Your task to perform on an android device: Show me popular videos on Youtube Image 0: 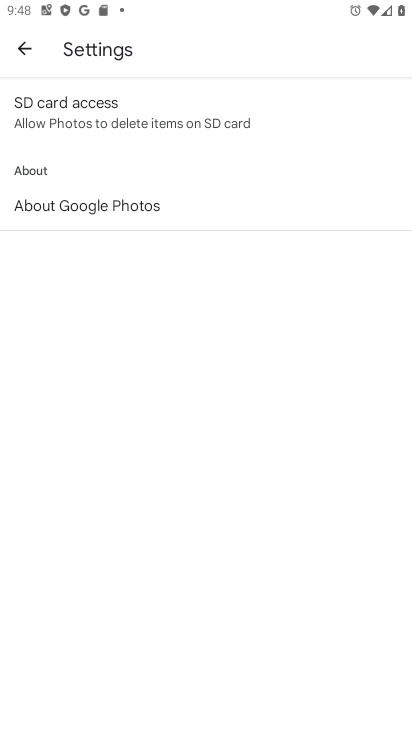
Step 0: press home button
Your task to perform on an android device: Show me popular videos on Youtube Image 1: 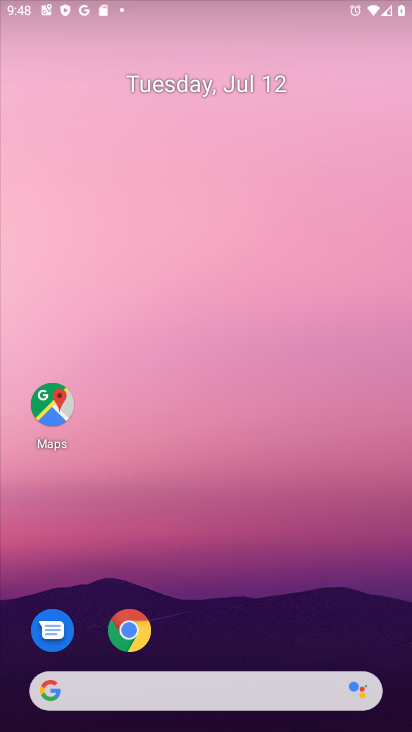
Step 1: drag from (229, 636) to (253, 210)
Your task to perform on an android device: Show me popular videos on Youtube Image 2: 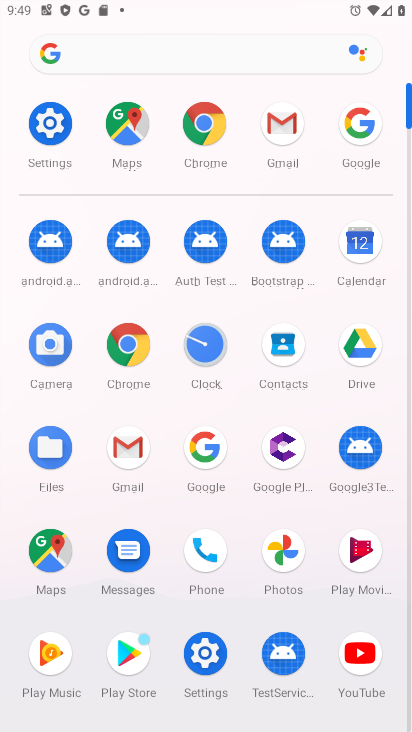
Step 2: click (355, 652)
Your task to perform on an android device: Show me popular videos on Youtube Image 3: 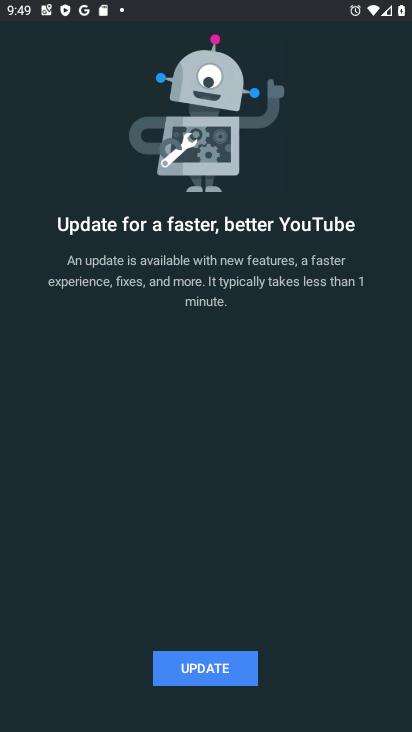
Step 3: click (198, 668)
Your task to perform on an android device: Show me popular videos on Youtube Image 4: 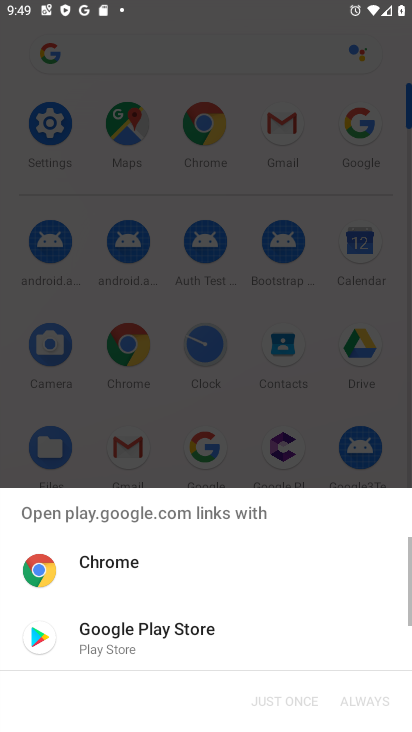
Step 4: click (135, 646)
Your task to perform on an android device: Show me popular videos on Youtube Image 5: 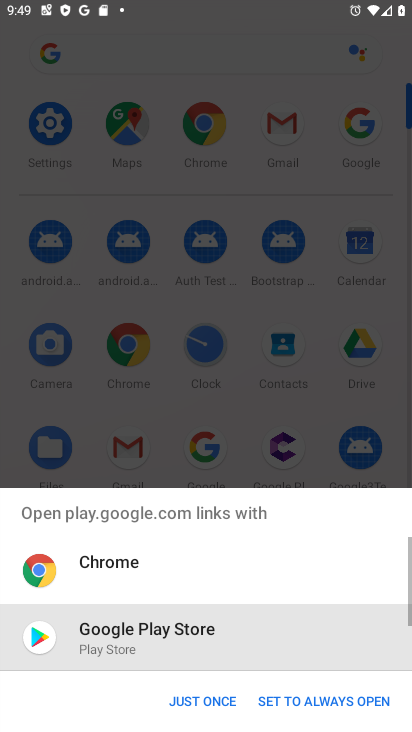
Step 5: click (202, 691)
Your task to perform on an android device: Show me popular videos on Youtube Image 6: 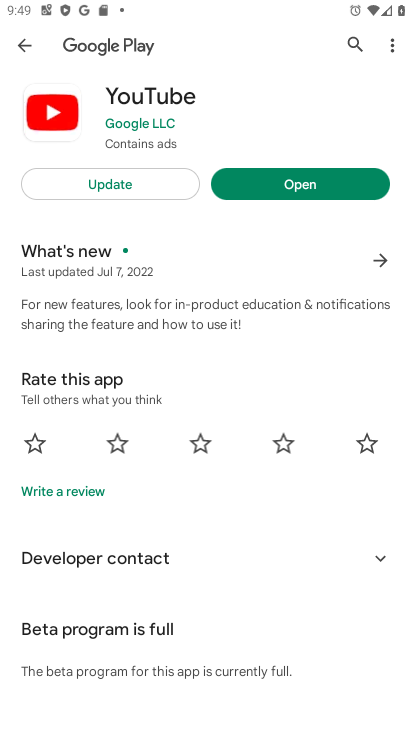
Step 6: click (103, 189)
Your task to perform on an android device: Show me popular videos on Youtube Image 7: 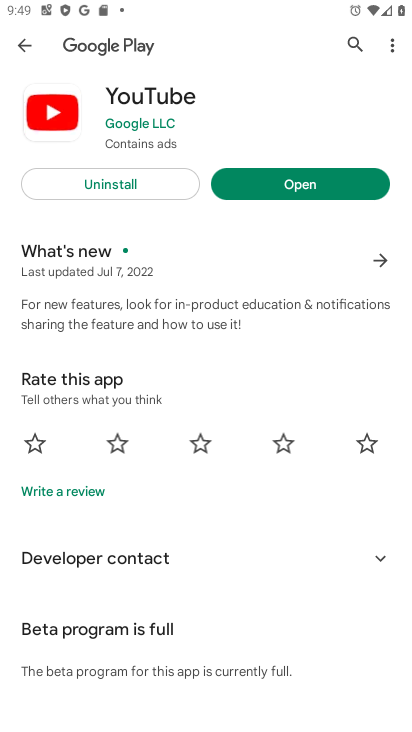
Step 7: click (277, 192)
Your task to perform on an android device: Show me popular videos on Youtube Image 8: 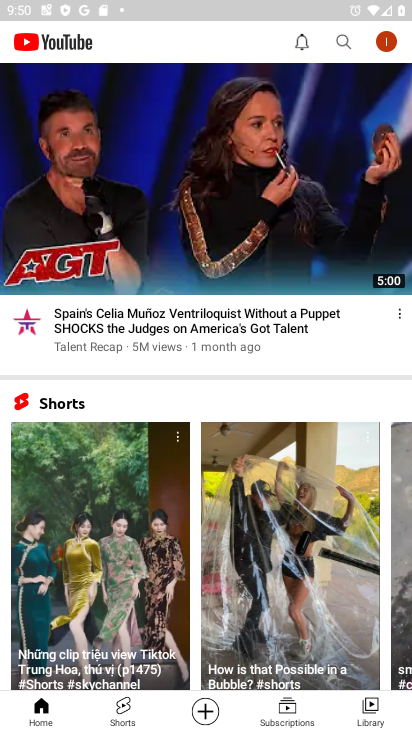
Step 8: task complete